Your task to perform on an android device: change alarm snooze length Image 0: 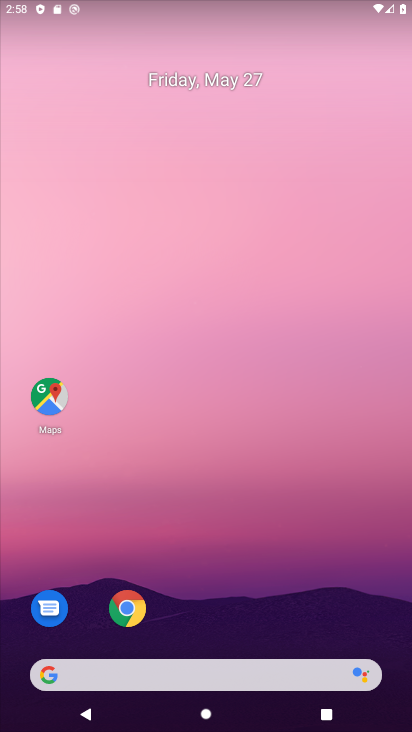
Step 0: drag from (207, 671) to (314, 167)
Your task to perform on an android device: change alarm snooze length Image 1: 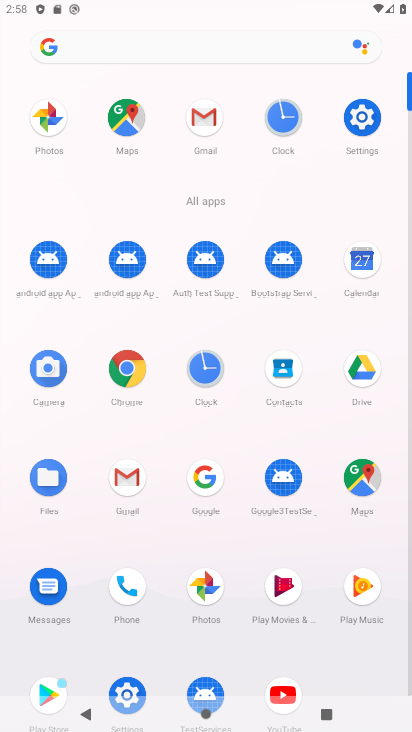
Step 1: drag from (151, 617) to (192, 427)
Your task to perform on an android device: change alarm snooze length Image 2: 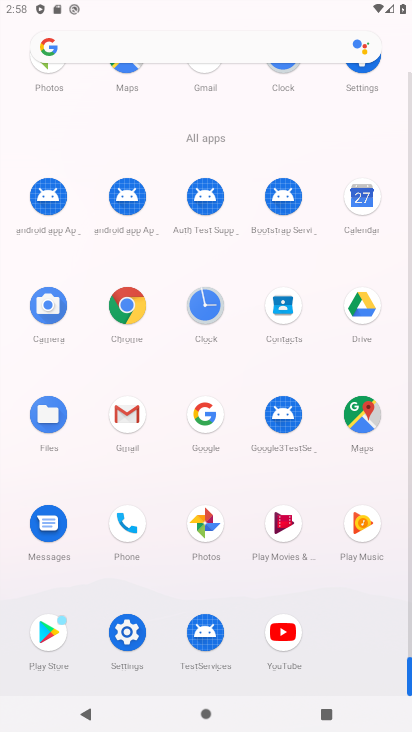
Step 2: click (201, 293)
Your task to perform on an android device: change alarm snooze length Image 3: 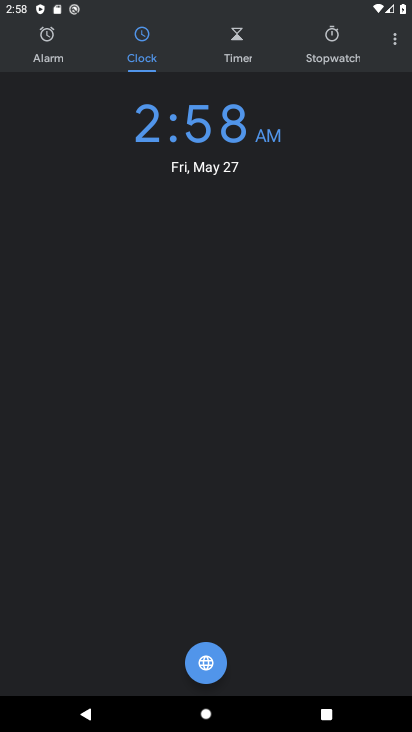
Step 3: click (384, 43)
Your task to perform on an android device: change alarm snooze length Image 4: 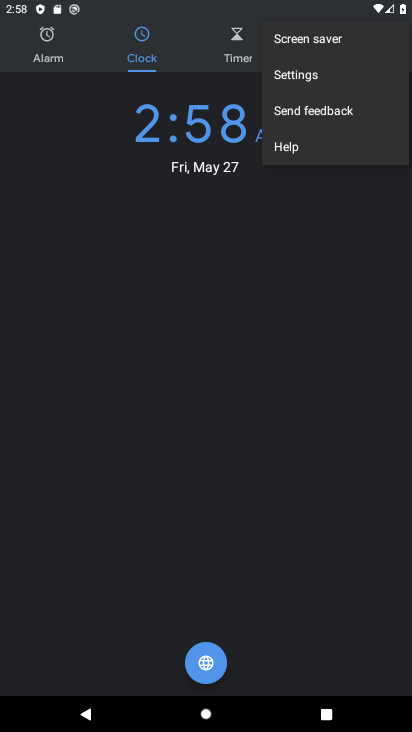
Step 4: click (357, 76)
Your task to perform on an android device: change alarm snooze length Image 5: 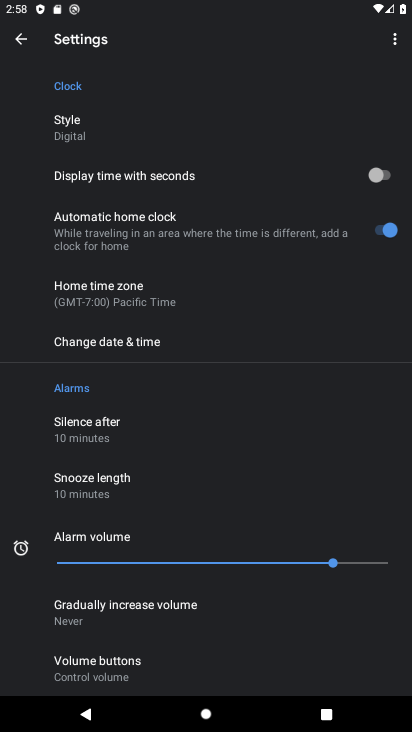
Step 5: drag from (192, 615) to (233, 448)
Your task to perform on an android device: change alarm snooze length Image 6: 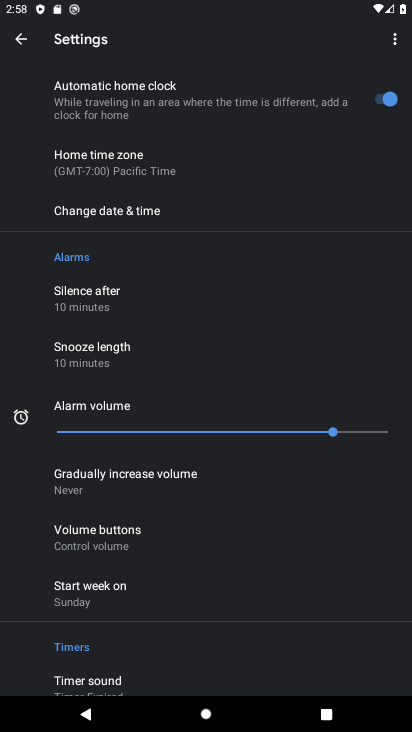
Step 6: click (185, 365)
Your task to perform on an android device: change alarm snooze length Image 7: 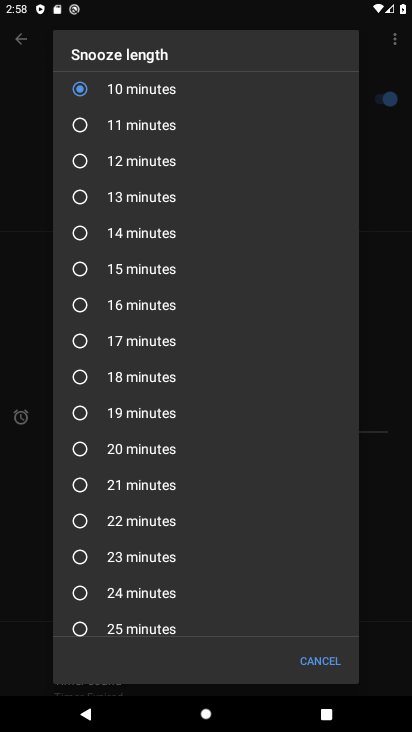
Step 7: click (193, 623)
Your task to perform on an android device: change alarm snooze length Image 8: 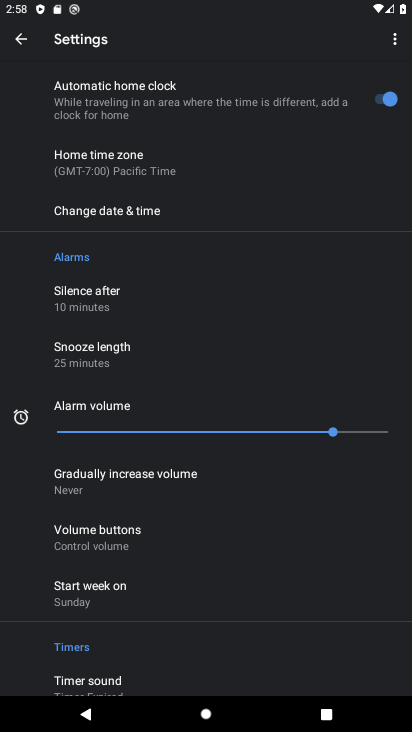
Step 8: task complete